Your task to perform on an android device: Open sound settings Image 0: 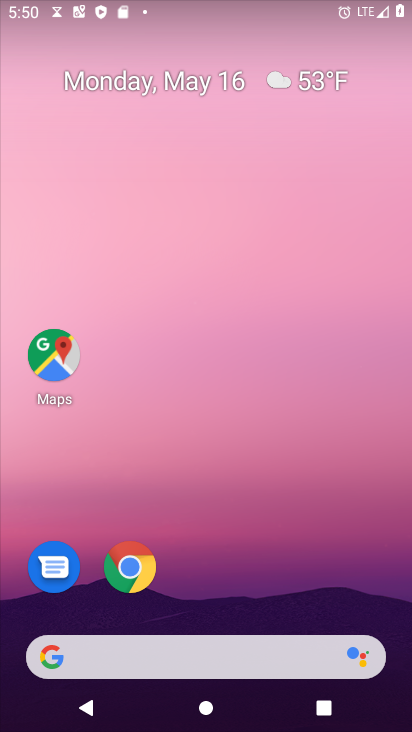
Step 0: drag from (268, 627) to (321, 73)
Your task to perform on an android device: Open sound settings Image 1: 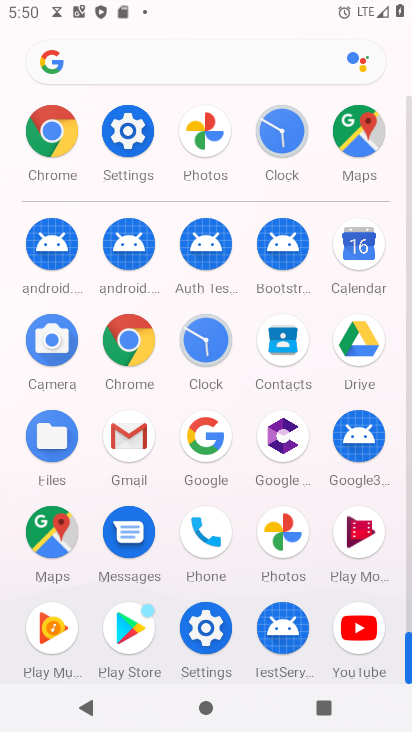
Step 1: click (123, 113)
Your task to perform on an android device: Open sound settings Image 2: 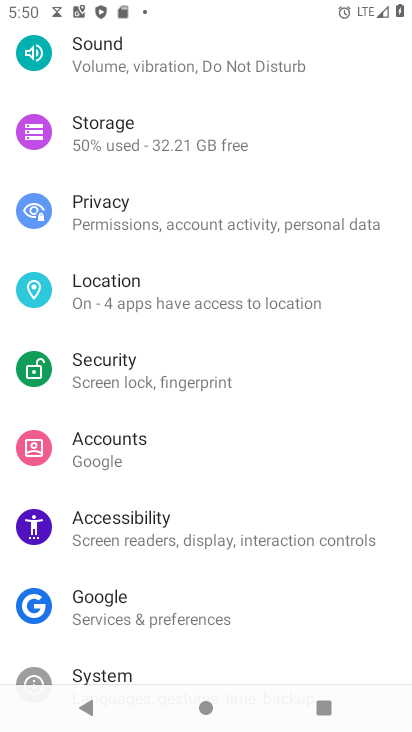
Step 2: click (170, 60)
Your task to perform on an android device: Open sound settings Image 3: 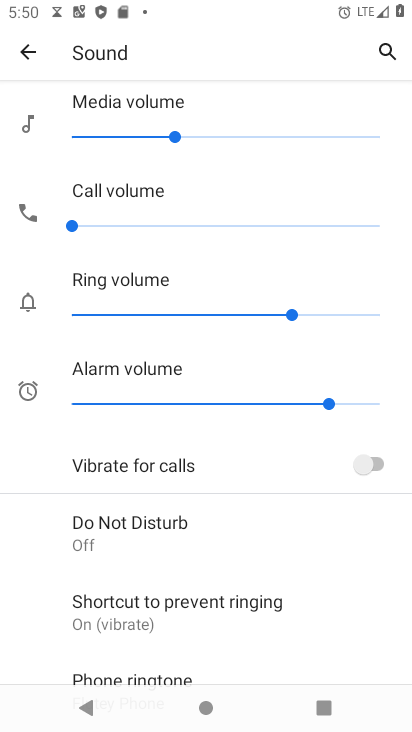
Step 3: task complete